Your task to perform on an android device: Open privacy settings Image 0: 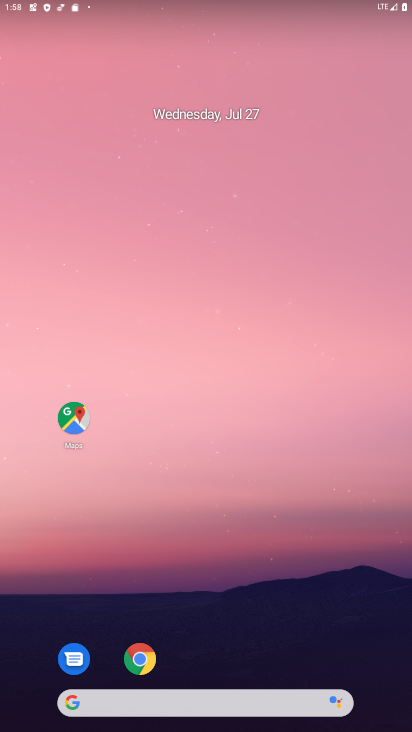
Step 0: drag from (243, 726) to (252, 80)
Your task to perform on an android device: Open privacy settings Image 1: 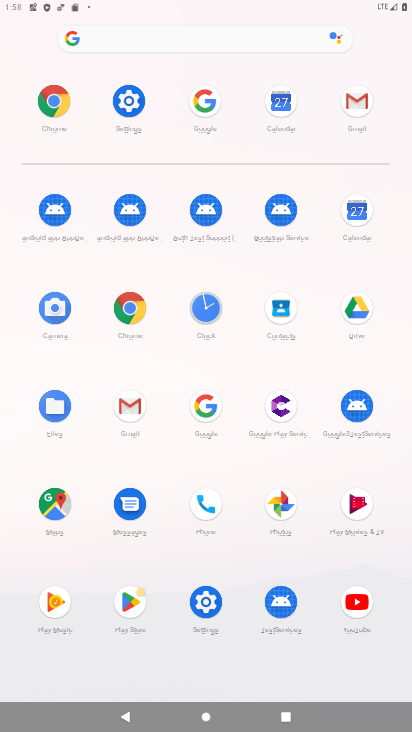
Step 1: click (118, 97)
Your task to perform on an android device: Open privacy settings Image 2: 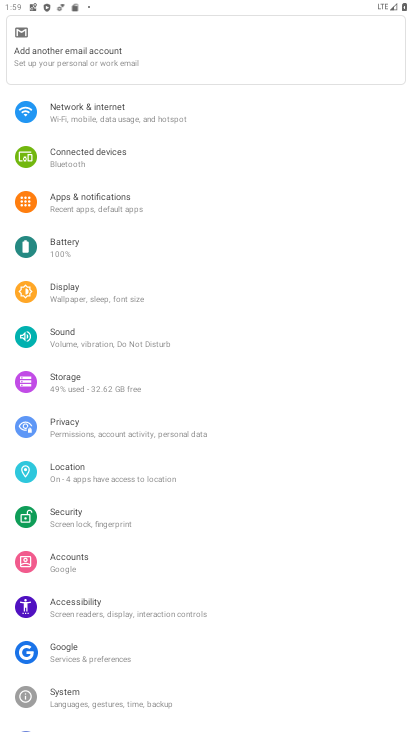
Step 2: click (65, 427)
Your task to perform on an android device: Open privacy settings Image 3: 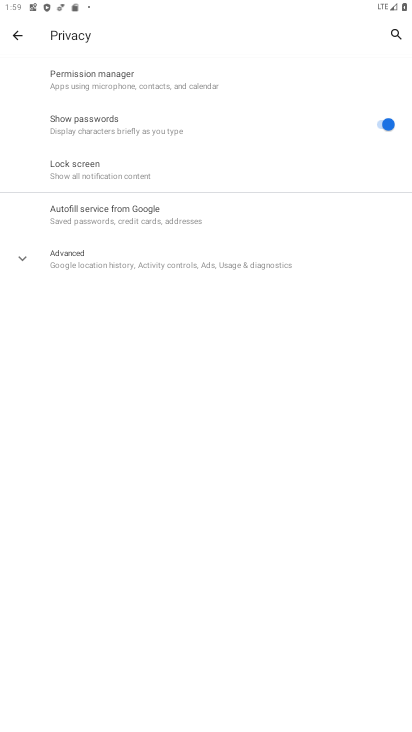
Step 3: task complete